Your task to perform on an android device: Go to battery settings Image 0: 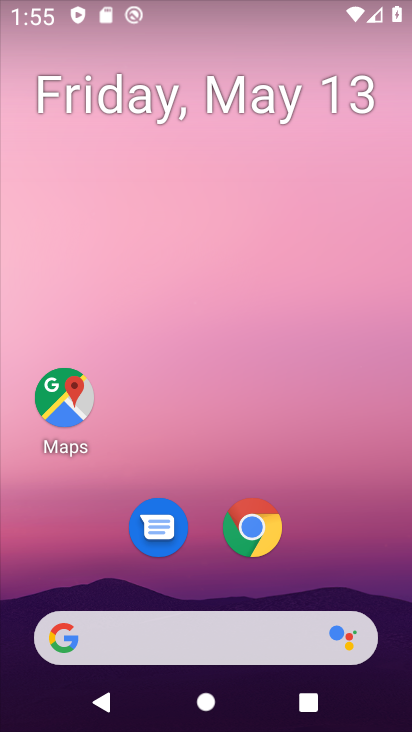
Step 0: drag from (214, 578) to (409, 3)
Your task to perform on an android device: Go to battery settings Image 1: 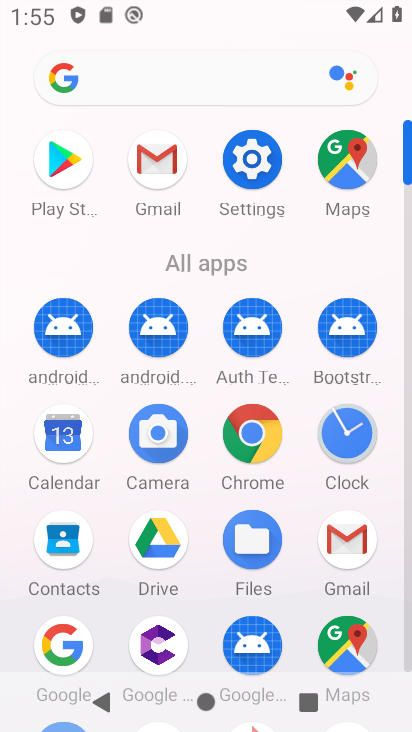
Step 1: click (231, 155)
Your task to perform on an android device: Go to battery settings Image 2: 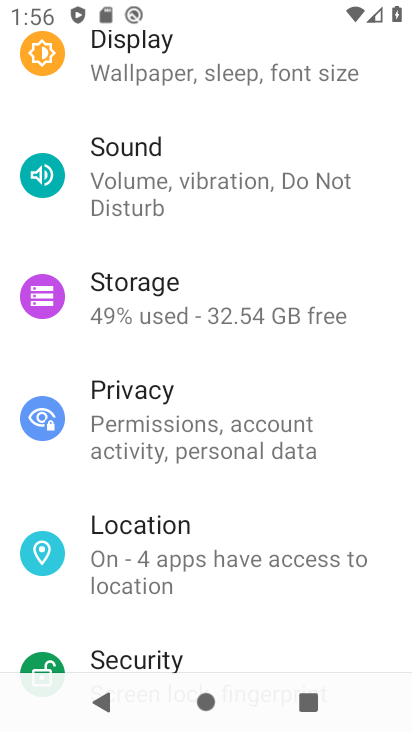
Step 2: drag from (175, 181) to (222, 599)
Your task to perform on an android device: Go to battery settings Image 3: 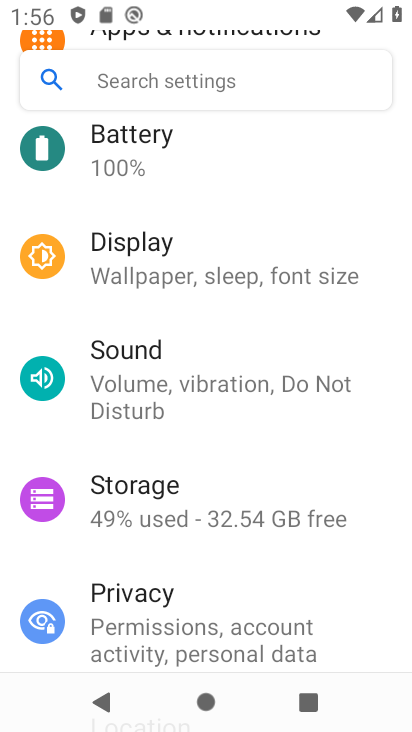
Step 3: click (181, 181)
Your task to perform on an android device: Go to battery settings Image 4: 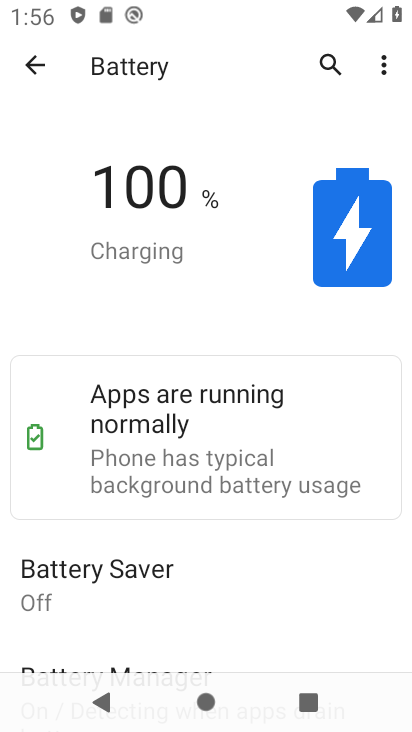
Step 4: task complete